Your task to perform on an android device: Search for seafood restaurants on Google Maps Image 0: 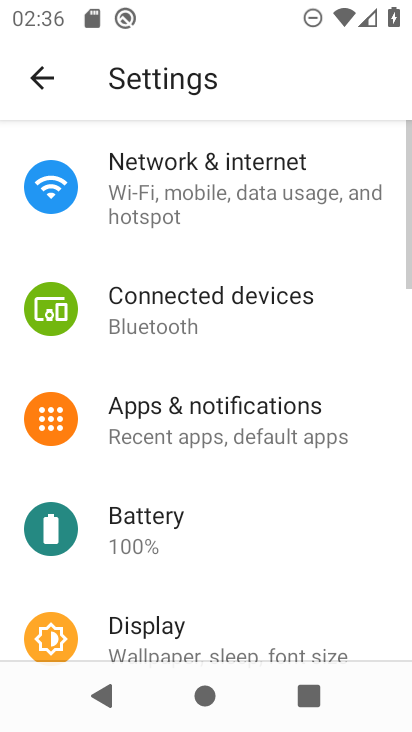
Step 0: press home button
Your task to perform on an android device: Search for seafood restaurants on Google Maps Image 1: 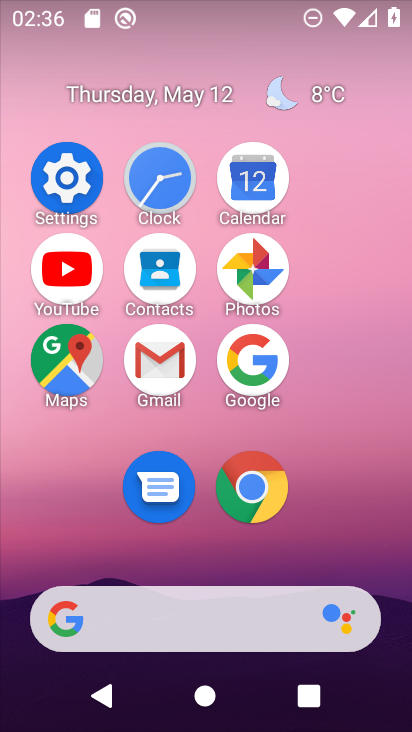
Step 1: click (73, 353)
Your task to perform on an android device: Search for seafood restaurants on Google Maps Image 2: 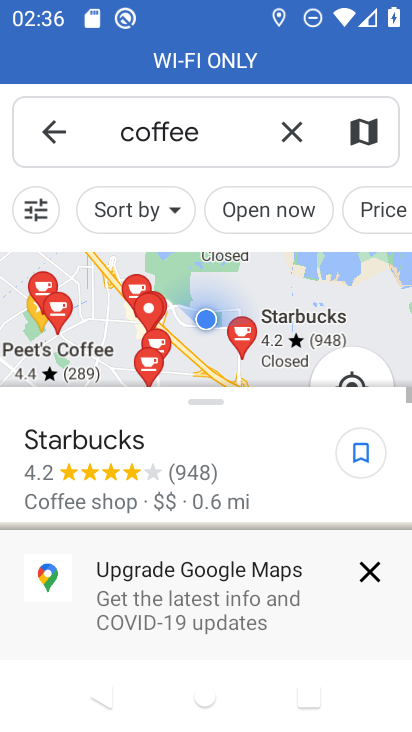
Step 2: click (292, 125)
Your task to perform on an android device: Search for seafood restaurants on Google Maps Image 3: 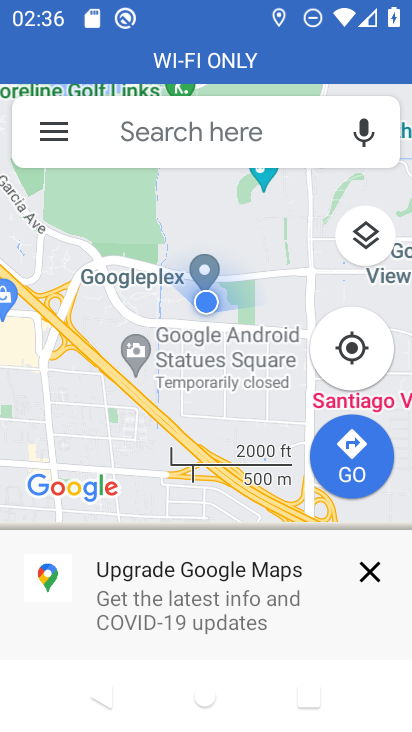
Step 3: click (151, 135)
Your task to perform on an android device: Search for seafood restaurants on Google Maps Image 4: 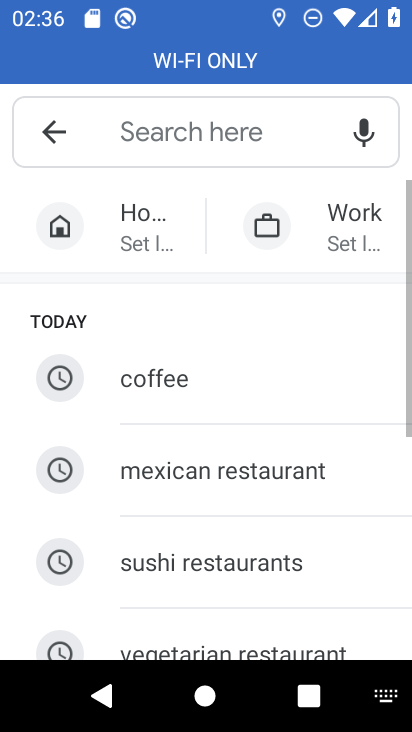
Step 4: drag from (264, 574) to (264, 246)
Your task to perform on an android device: Search for seafood restaurants on Google Maps Image 5: 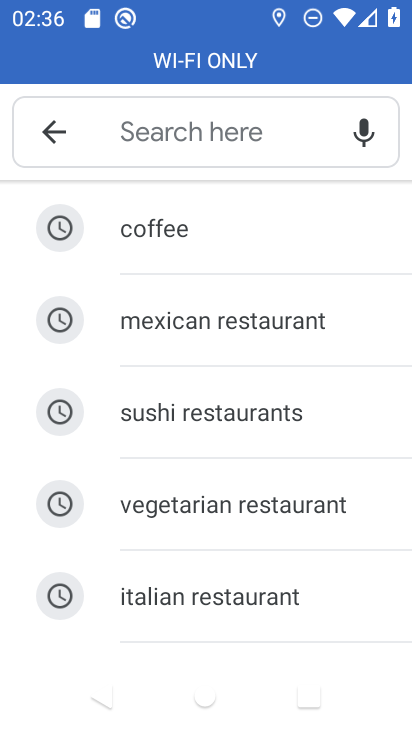
Step 5: click (202, 146)
Your task to perform on an android device: Search for seafood restaurants on Google Maps Image 6: 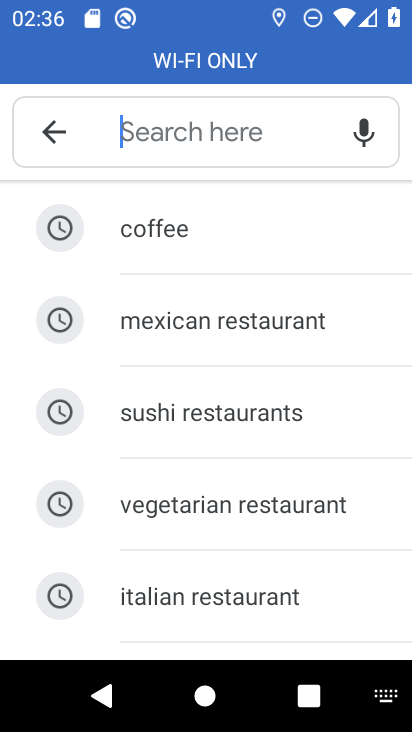
Step 6: type "seafood restaurants"
Your task to perform on an android device: Search for seafood restaurants on Google Maps Image 7: 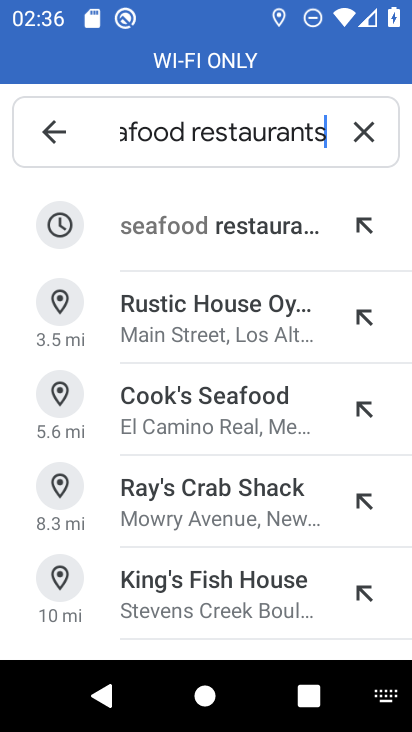
Step 7: task complete